Your task to perform on an android device: turn on notifications settings in the gmail app Image 0: 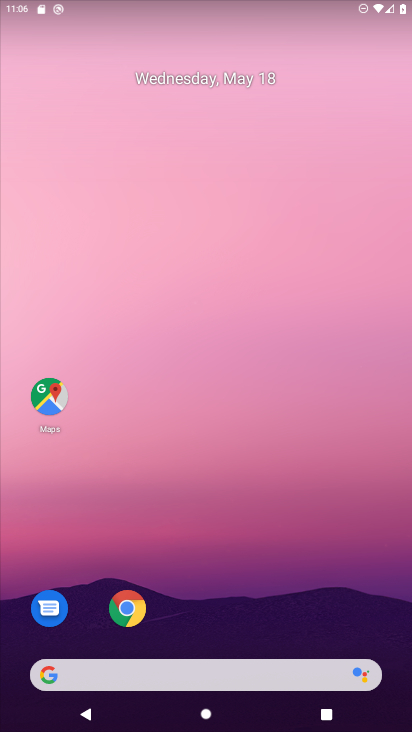
Step 0: drag from (247, 592) to (245, 190)
Your task to perform on an android device: turn on notifications settings in the gmail app Image 1: 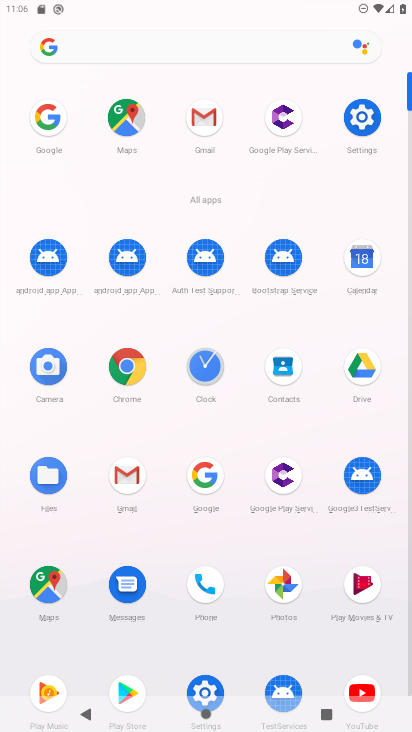
Step 1: click (203, 119)
Your task to perform on an android device: turn on notifications settings in the gmail app Image 2: 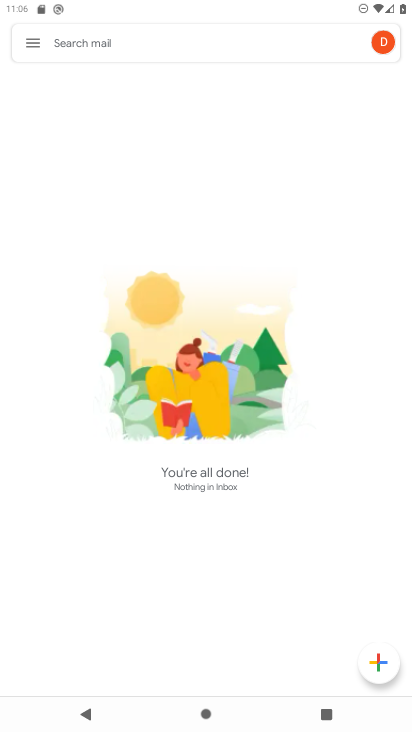
Step 2: click (30, 46)
Your task to perform on an android device: turn on notifications settings in the gmail app Image 3: 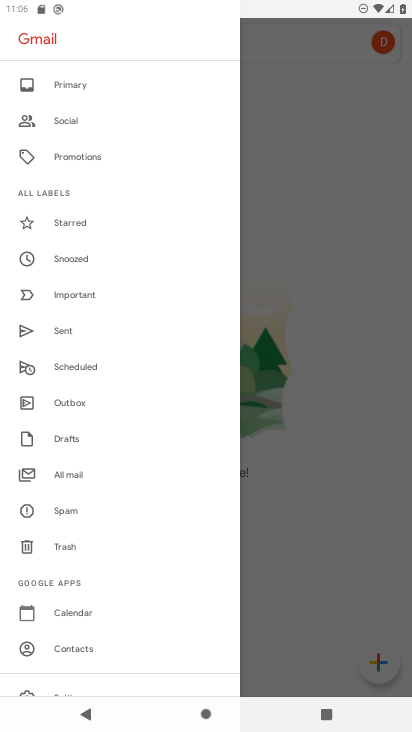
Step 3: drag from (81, 547) to (74, 422)
Your task to perform on an android device: turn on notifications settings in the gmail app Image 4: 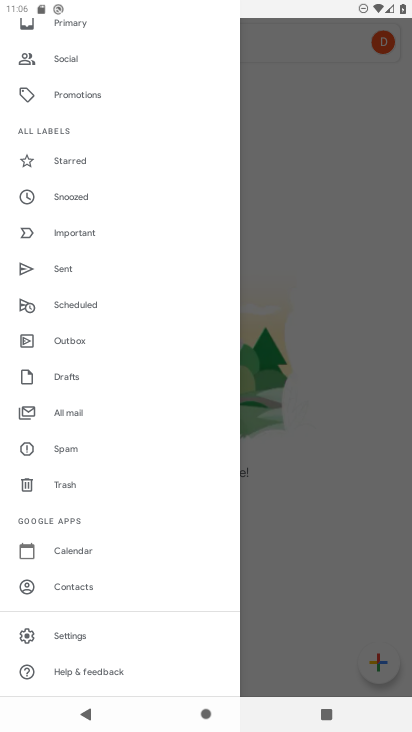
Step 4: click (72, 628)
Your task to perform on an android device: turn on notifications settings in the gmail app Image 5: 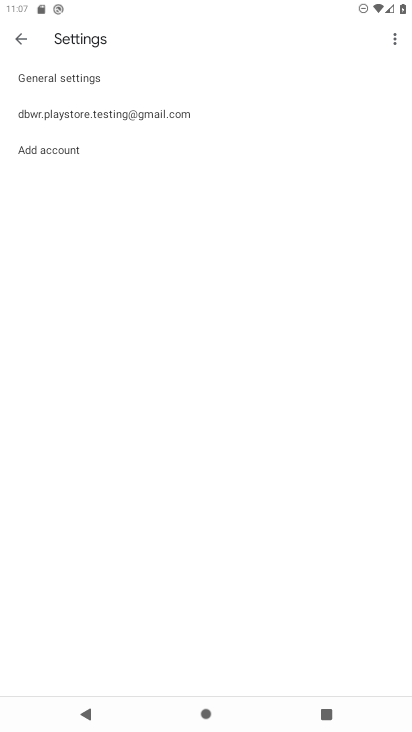
Step 5: click (148, 111)
Your task to perform on an android device: turn on notifications settings in the gmail app Image 6: 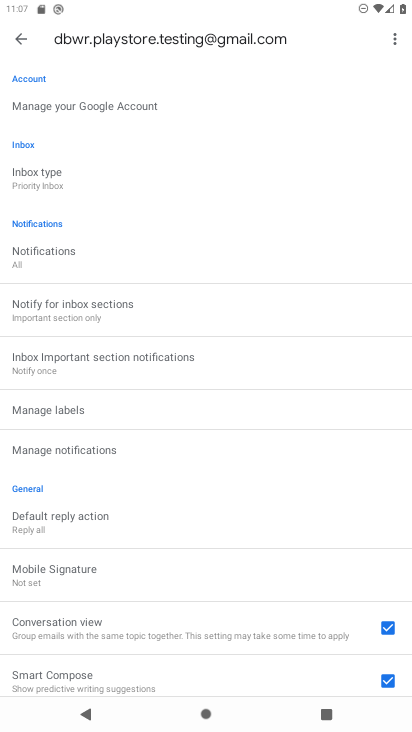
Step 6: click (91, 452)
Your task to perform on an android device: turn on notifications settings in the gmail app Image 7: 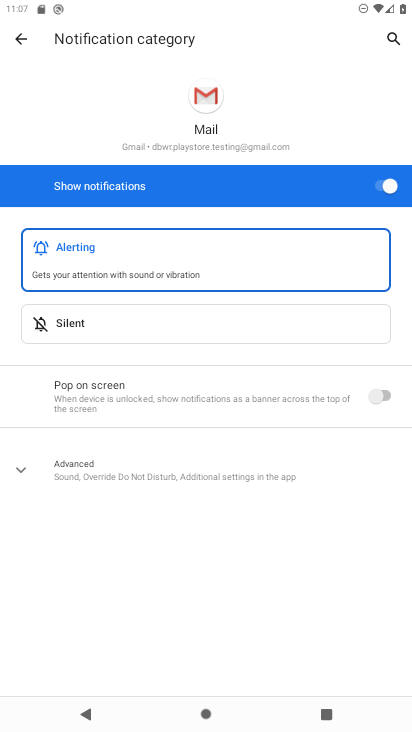
Step 7: task complete